Your task to perform on an android device: turn on bluetooth scan Image 0: 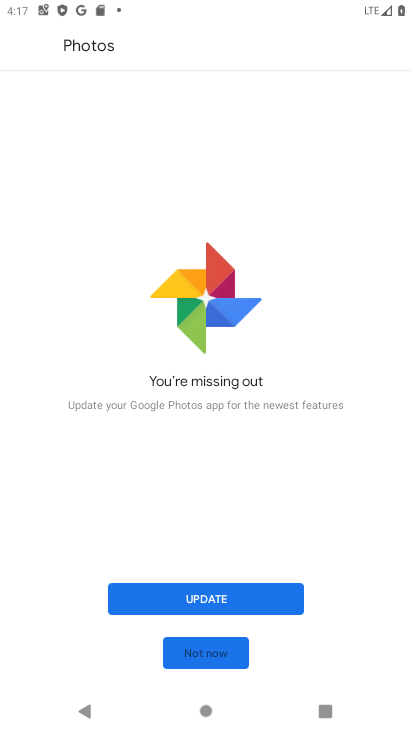
Step 0: press home button
Your task to perform on an android device: turn on bluetooth scan Image 1: 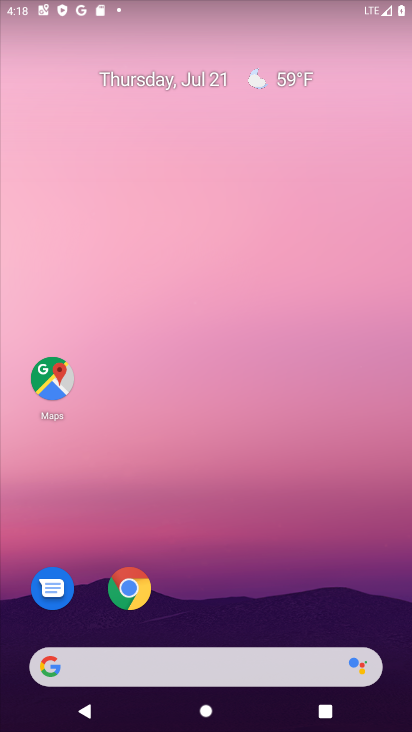
Step 1: drag from (235, 719) to (237, 103)
Your task to perform on an android device: turn on bluetooth scan Image 2: 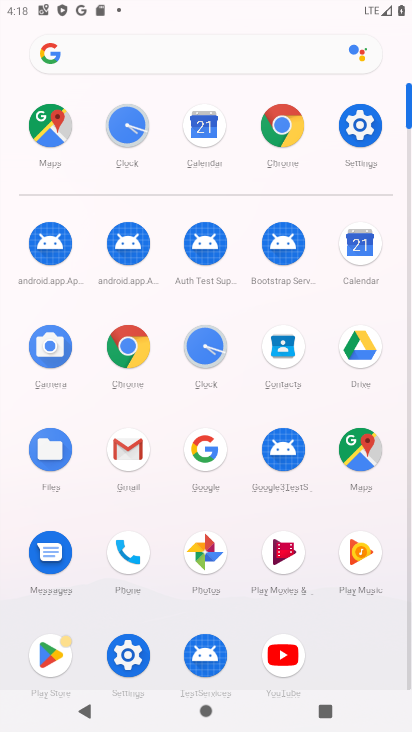
Step 2: click (363, 125)
Your task to perform on an android device: turn on bluetooth scan Image 3: 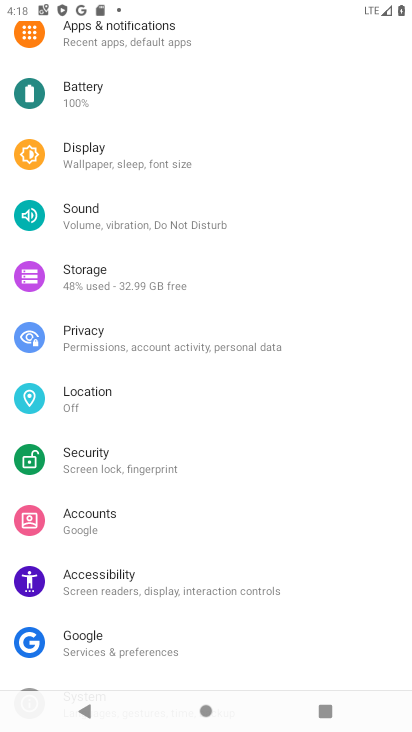
Step 3: click (84, 391)
Your task to perform on an android device: turn on bluetooth scan Image 4: 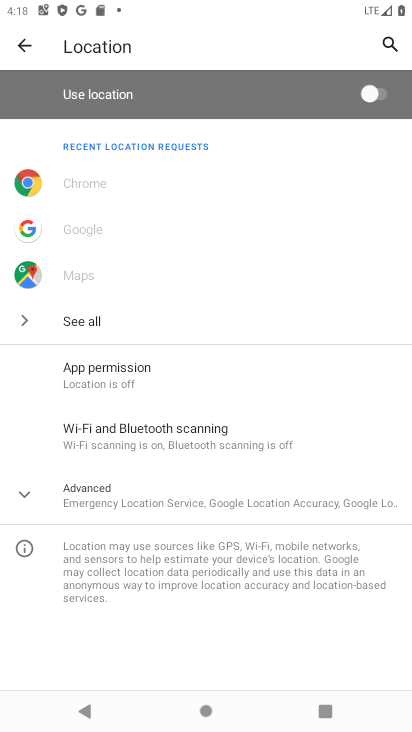
Step 4: click (140, 438)
Your task to perform on an android device: turn on bluetooth scan Image 5: 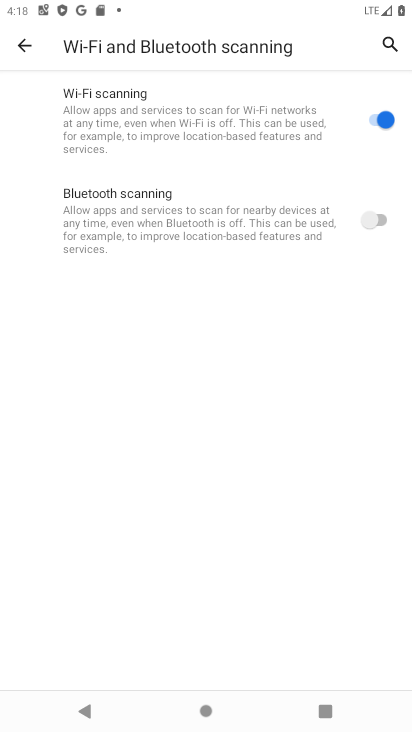
Step 5: click (382, 213)
Your task to perform on an android device: turn on bluetooth scan Image 6: 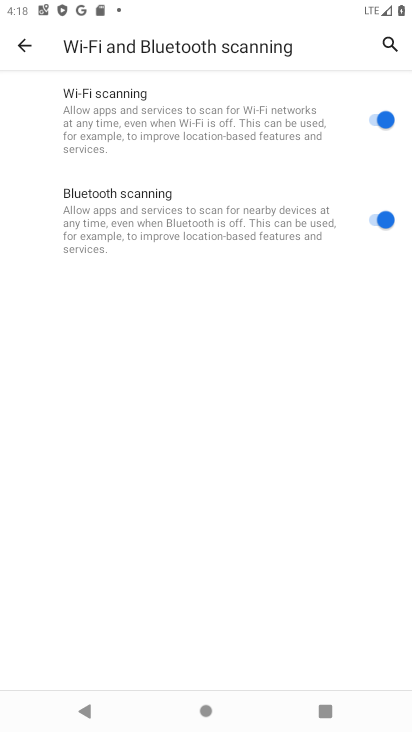
Step 6: task complete